Your task to perform on an android device: star an email in the gmail app Image 0: 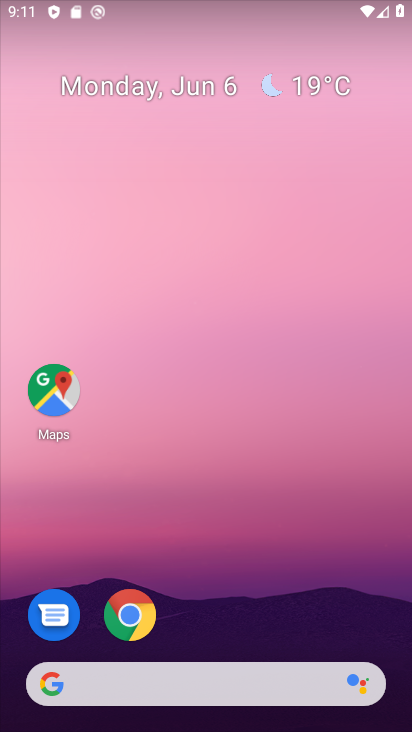
Step 0: drag from (205, 640) to (270, 0)
Your task to perform on an android device: star an email in the gmail app Image 1: 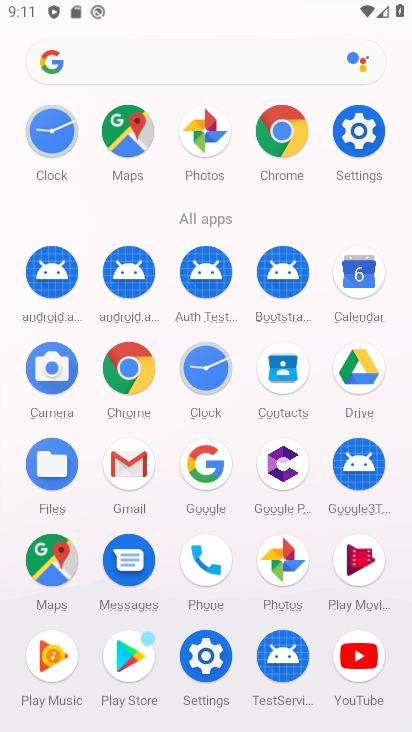
Step 1: click (112, 486)
Your task to perform on an android device: star an email in the gmail app Image 2: 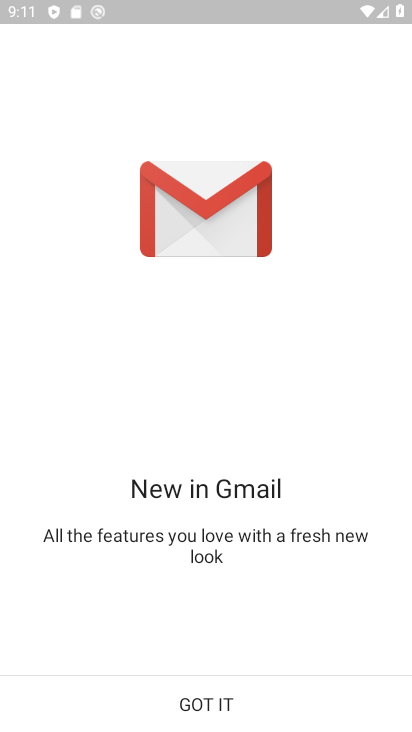
Step 2: task complete